Your task to perform on an android device: create a new album in the google photos Image 0: 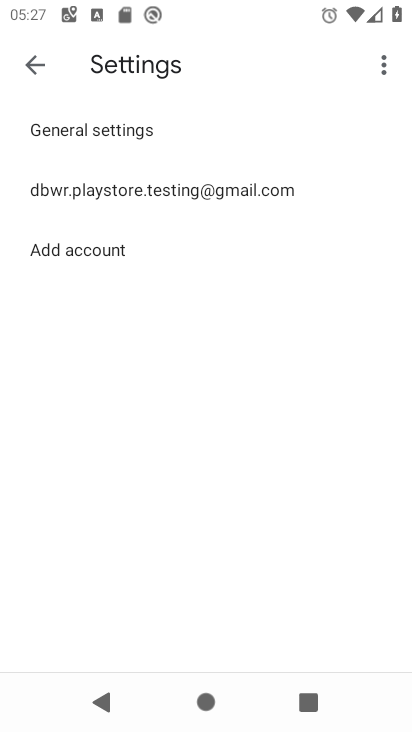
Step 0: drag from (329, 678) to (364, 221)
Your task to perform on an android device: create a new album in the google photos Image 1: 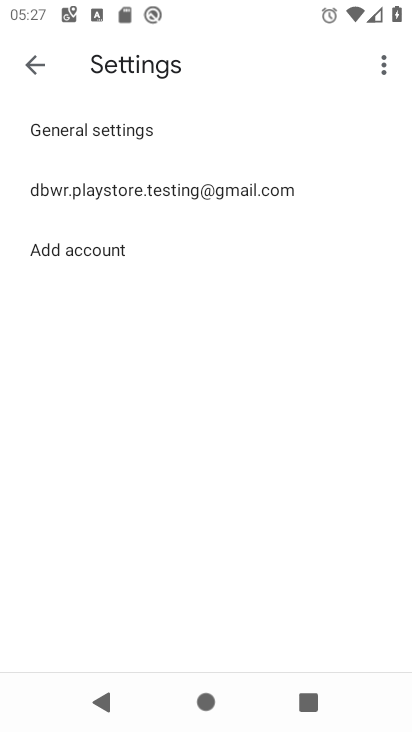
Step 1: press home button
Your task to perform on an android device: create a new album in the google photos Image 2: 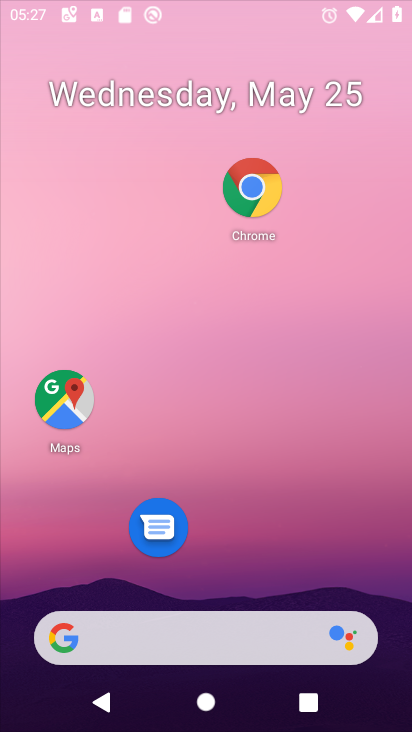
Step 2: drag from (307, 666) to (377, 153)
Your task to perform on an android device: create a new album in the google photos Image 3: 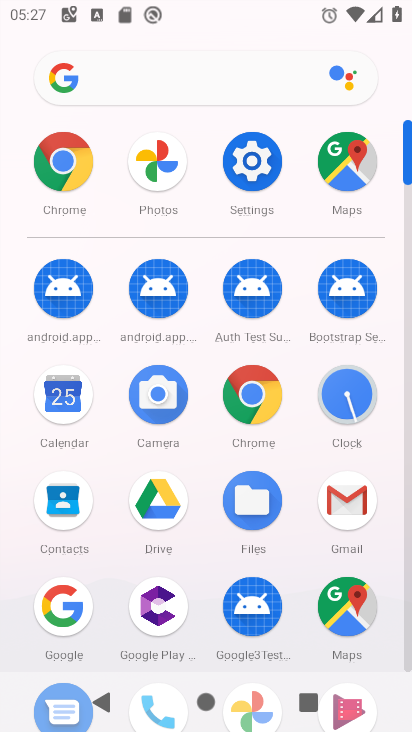
Step 3: drag from (311, 641) to (297, 290)
Your task to perform on an android device: create a new album in the google photos Image 4: 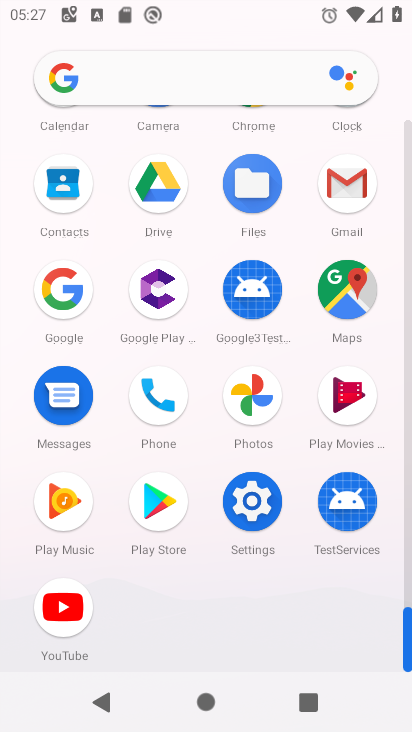
Step 4: click (249, 411)
Your task to perform on an android device: create a new album in the google photos Image 5: 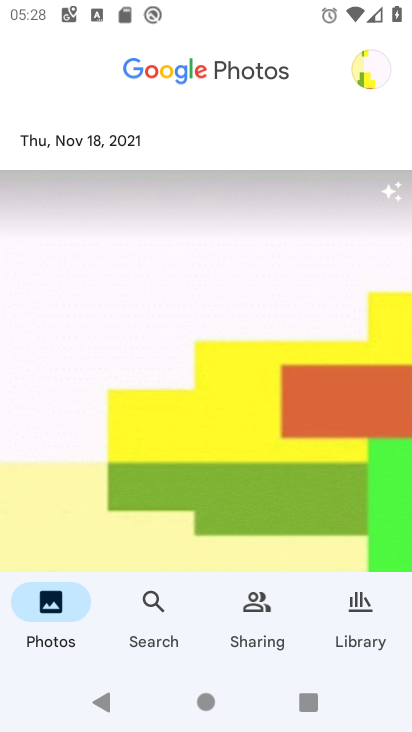
Step 5: click (357, 607)
Your task to perform on an android device: create a new album in the google photos Image 6: 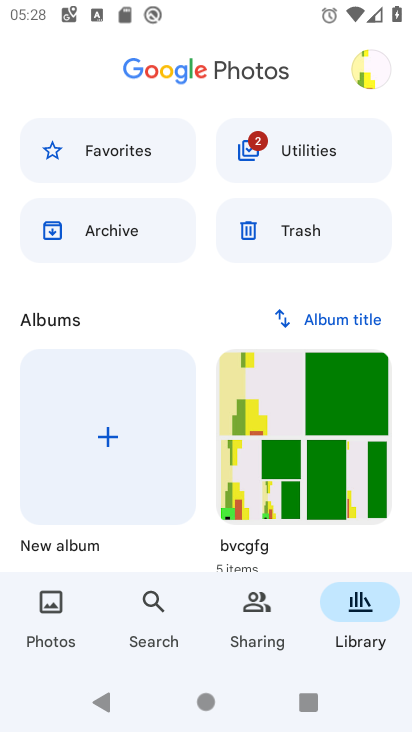
Step 6: click (116, 444)
Your task to perform on an android device: create a new album in the google photos Image 7: 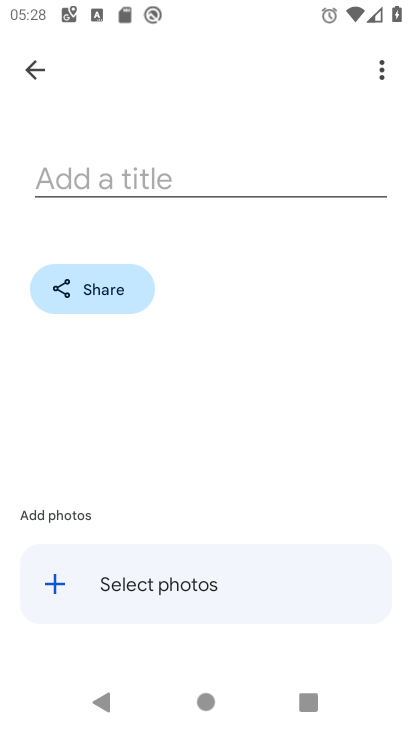
Step 7: click (149, 176)
Your task to perform on an android device: create a new album in the google photos Image 8: 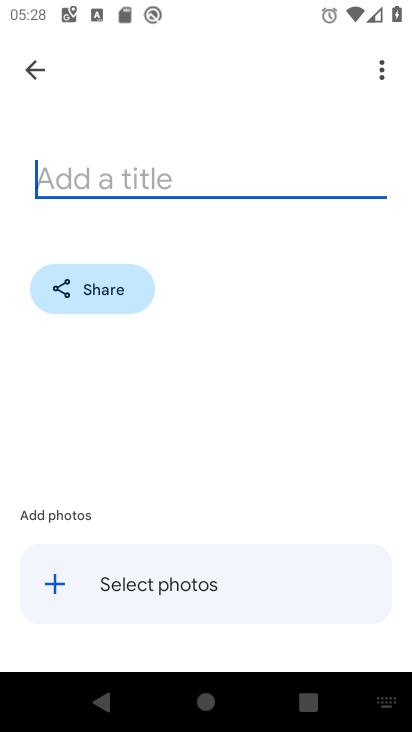
Step 8: type "kjhdckjklj"
Your task to perform on an android device: create a new album in the google photos Image 9: 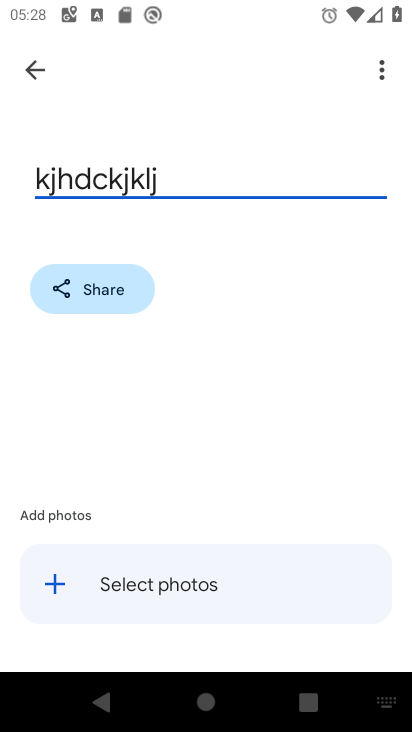
Step 9: click (56, 576)
Your task to perform on an android device: create a new album in the google photos Image 10: 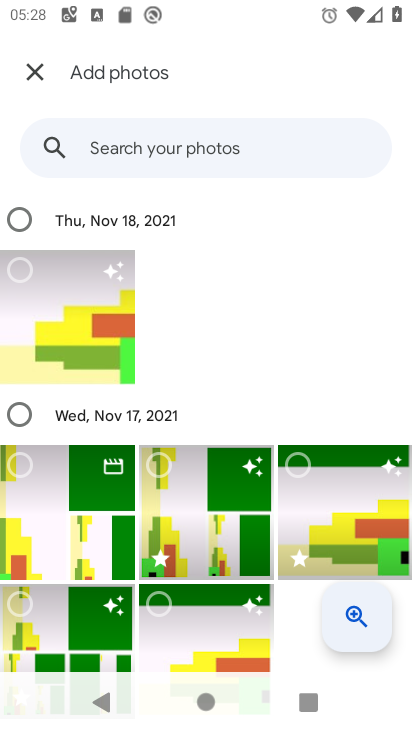
Step 10: click (59, 309)
Your task to perform on an android device: create a new album in the google photos Image 11: 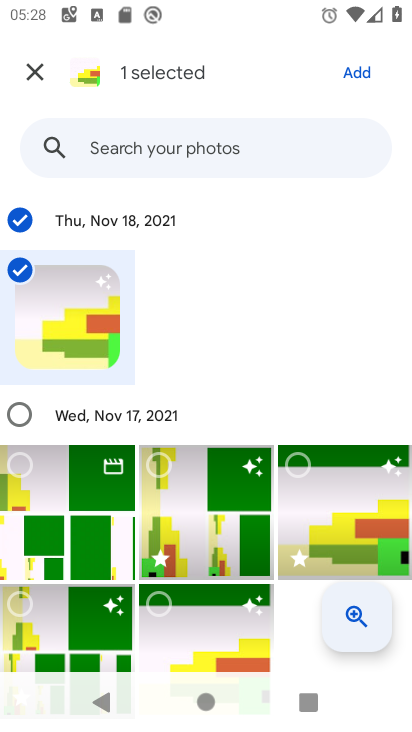
Step 11: click (363, 73)
Your task to perform on an android device: create a new album in the google photos Image 12: 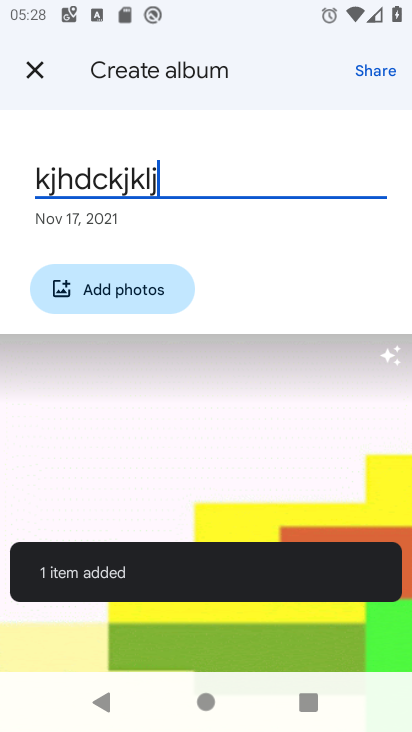
Step 12: task complete